Your task to perform on an android device: find snoozed emails in the gmail app Image 0: 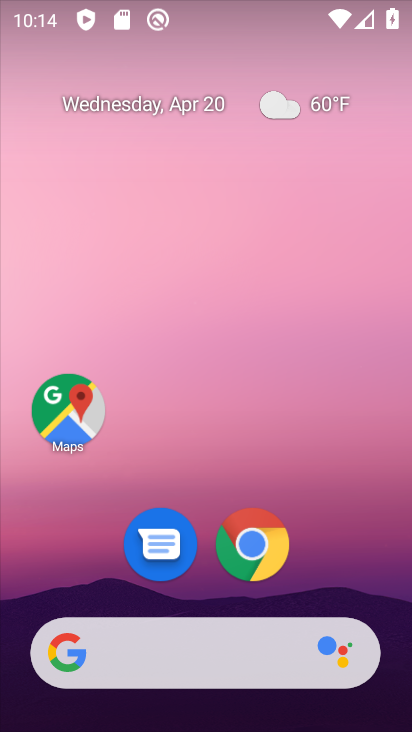
Step 0: drag from (380, 592) to (340, 122)
Your task to perform on an android device: find snoozed emails in the gmail app Image 1: 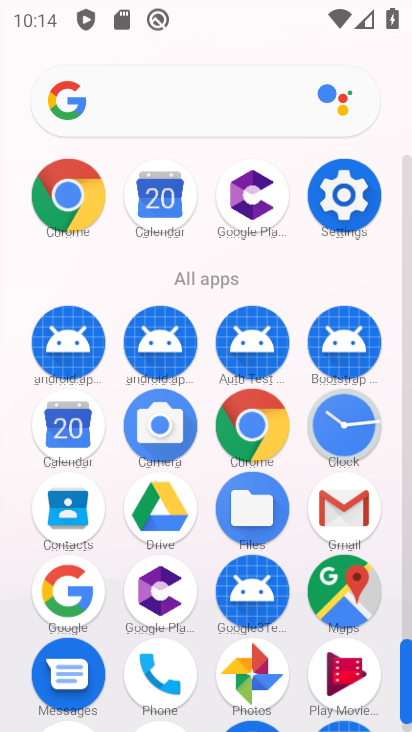
Step 1: click (336, 521)
Your task to perform on an android device: find snoozed emails in the gmail app Image 2: 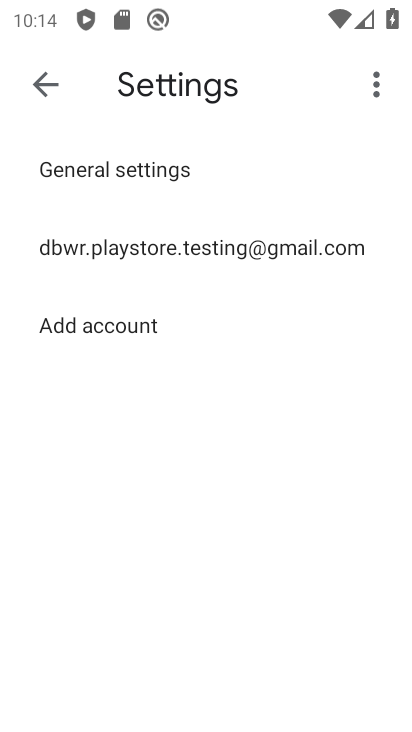
Step 2: click (336, 233)
Your task to perform on an android device: find snoozed emails in the gmail app Image 3: 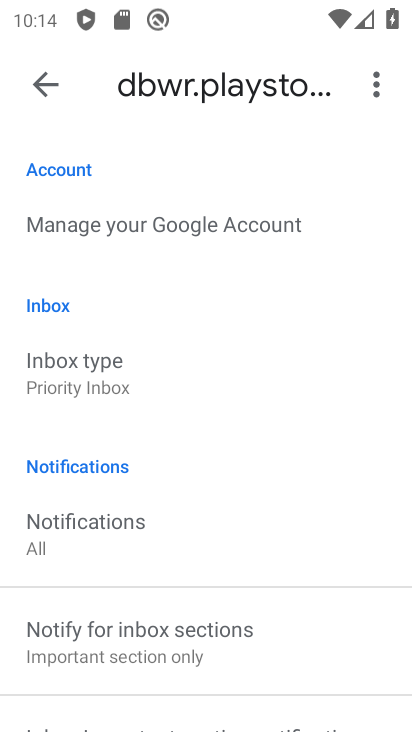
Step 3: press back button
Your task to perform on an android device: find snoozed emails in the gmail app Image 4: 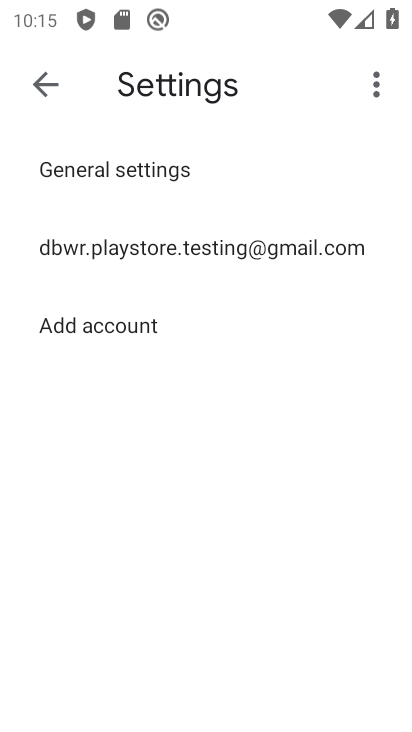
Step 4: press back button
Your task to perform on an android device: find snoozed emails in the gmail app Image 5: 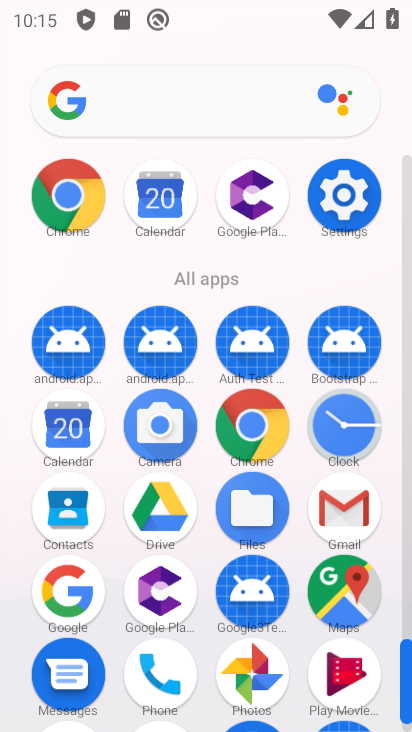
Step 5: click (338, 546)
Your task to perform on an android device: find snoozed emails in the gmail app Image 6: 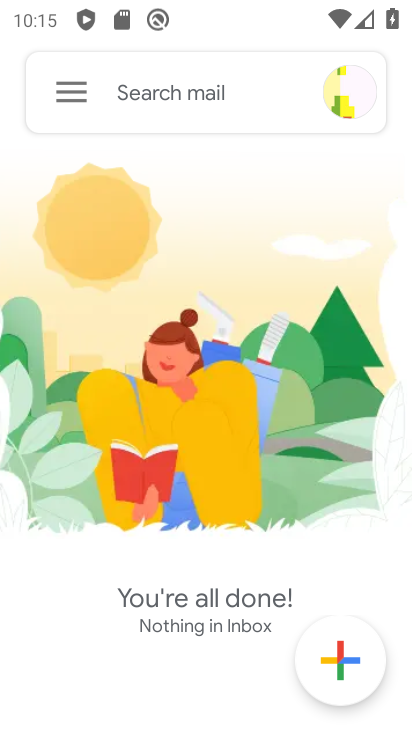
Step 6: click (67, 94)
Your task to perform on an android device: find snoozed emails in the gmail app Image 7: 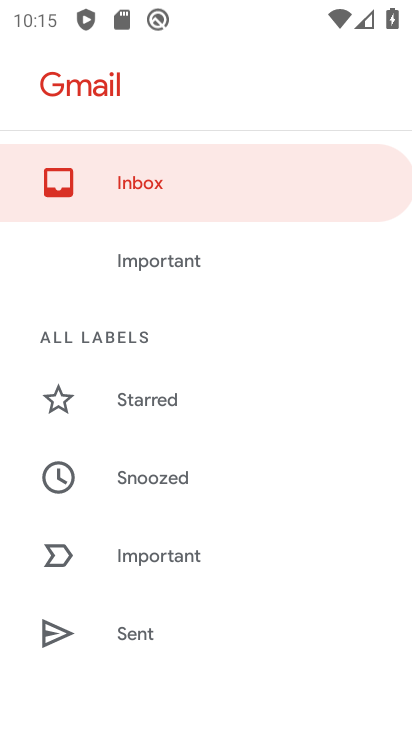
Step 7: click (180, 478)
Your task to perform on an android device: find snoozed emails in the gmail app Image 8: 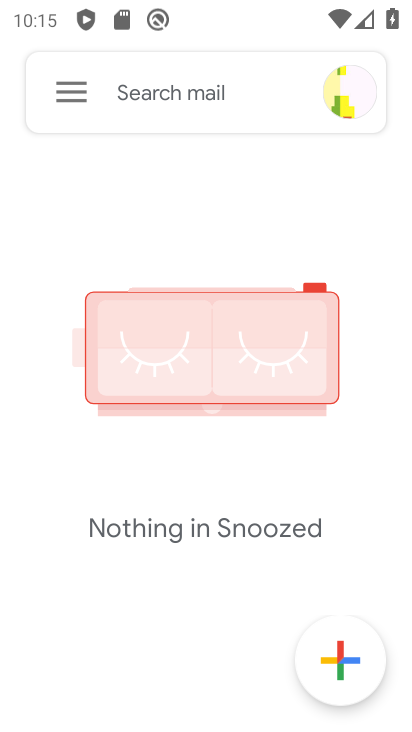
Step 8: task complete